Your task to perform on an android device: Turn off the flashlight Image 0: 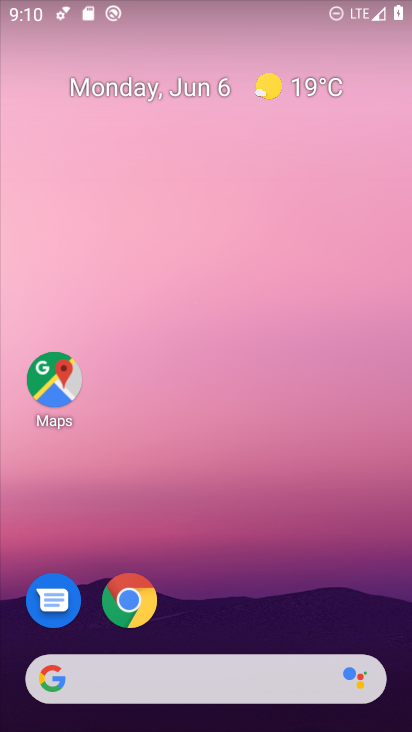
Step 0: task impossible